Your task to perform on an android device: Open settings Image 0: 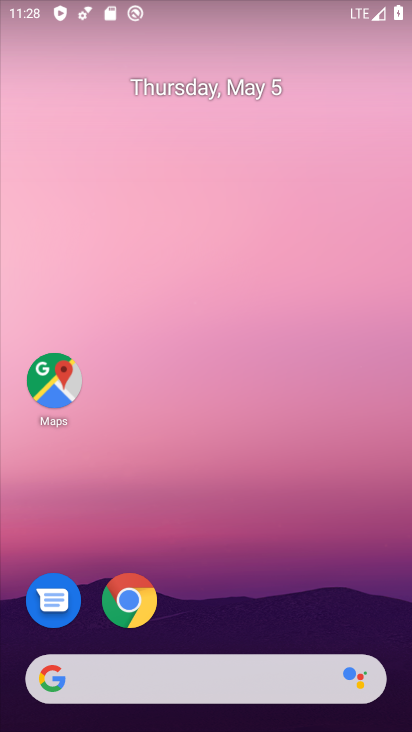
Step 0: drag from (361, 621) to (197, 85)
Your task to perform on an android device: Open settings Image 1: 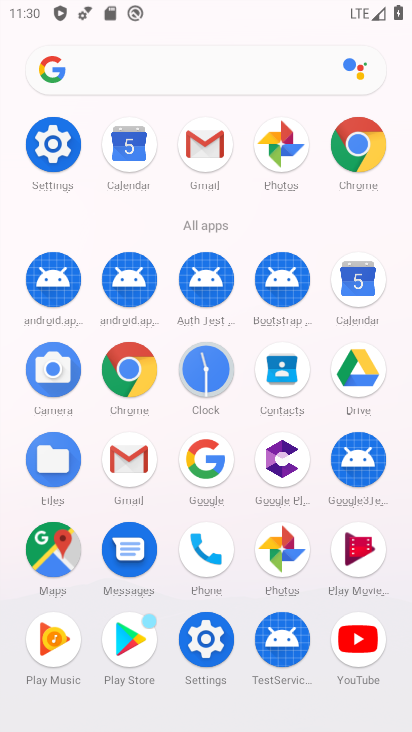
Step 1: click (202, 640)
Your task to perform on an android device: Open settings Image 2: 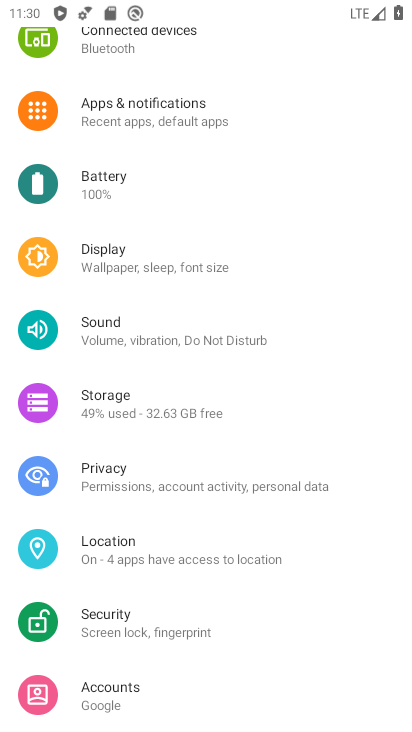
Step 2: task complete